Your task to perform on an android device: Check the weather Image 0: 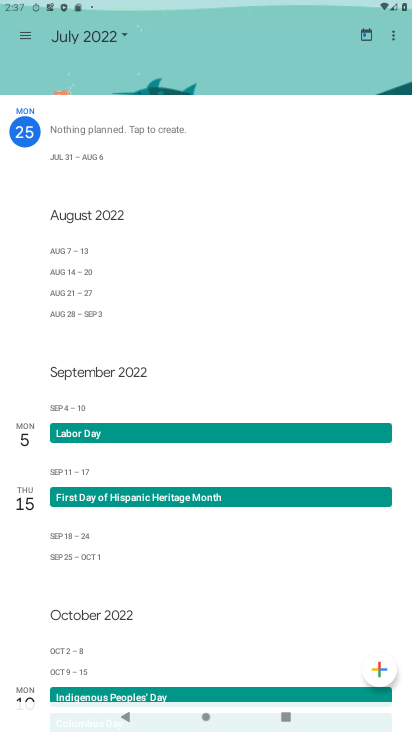
Step 0: press home button
Your task to perform on an android device: Check the weather Image 1: 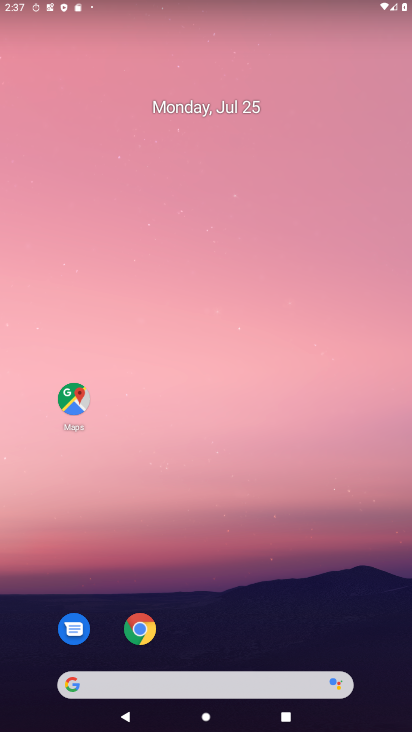
Step 1: click (149, 681)
Your task to perform on an android device: Check the weather Image 2: 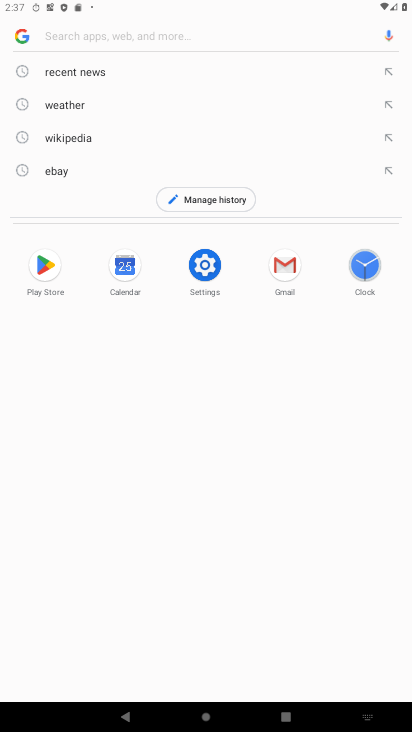
Step 2: click (59, 99)
Your task to perform on an android device: Check the weather Image 3: 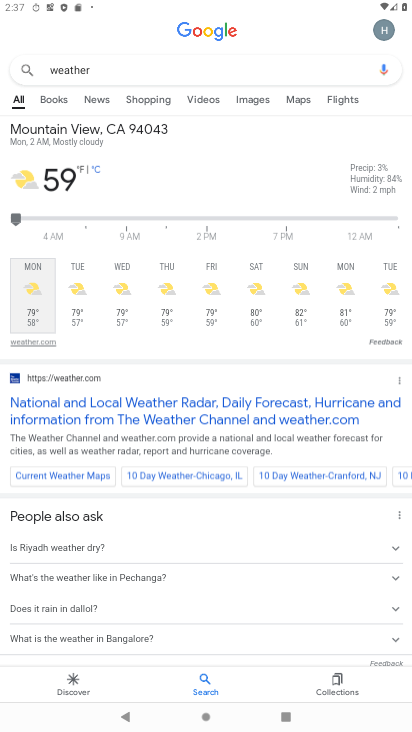
Step 3: task complete